Your task to perform on an android device: uninstall "Spotify" Image 0: 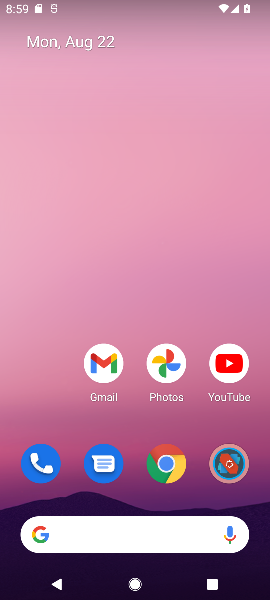
Step 0: drag from (110, 467) to (88, 170)
Your task to perform on an android device: uninstall "Spotify" Image 1: 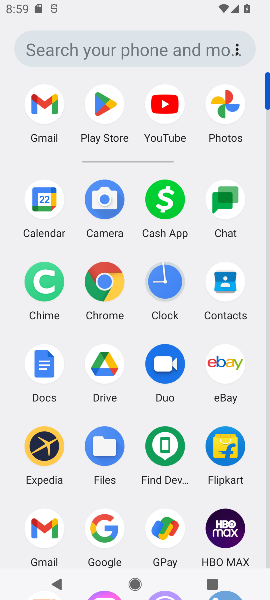
Step 1: click (97, 97)
Your task to perform on an android device: uninstall "Spotify" Image 2: 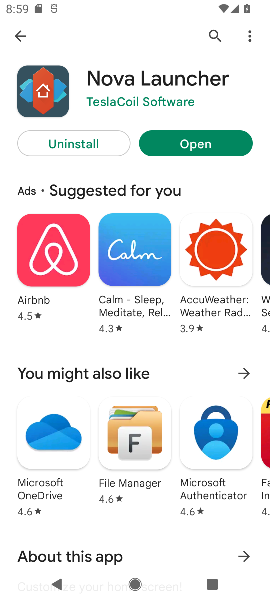
Step 2: press back button
Your task to perform on an android device: uninstall "Spotify" Image 3: 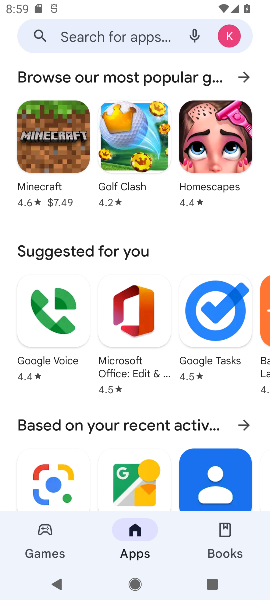
Step 3: click (117, 42)
Your task to perform on an android device: uninstall "Spotify" Image 4: 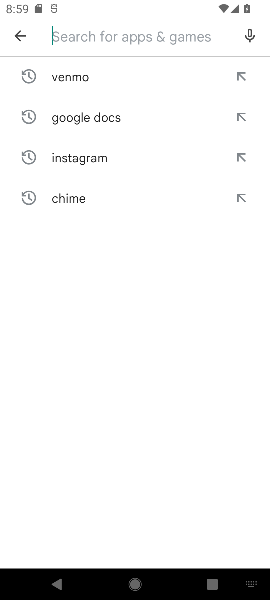
Step 4: type "Spotify"
Your task to perform on an android device: uninstall "Spotify" Image 5: 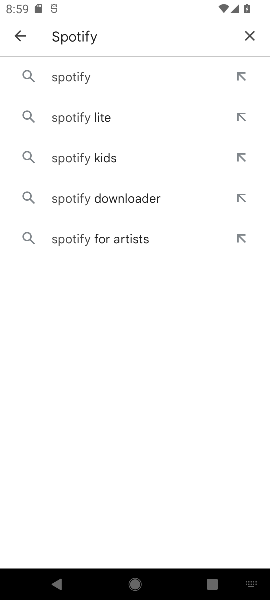
Step 5: click (80, 80)
Your task to perform on an android device: uninstall "Spotify" Image 6: 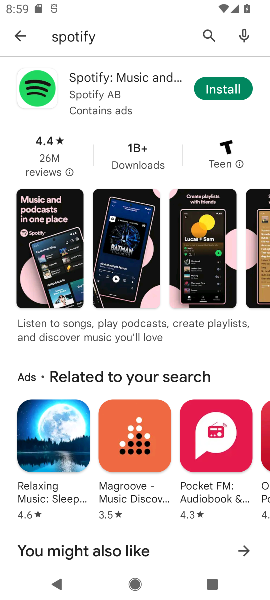
Step 6: task complete